Your task to perform on an android device: add a label to a message in the gmail app Image 0: 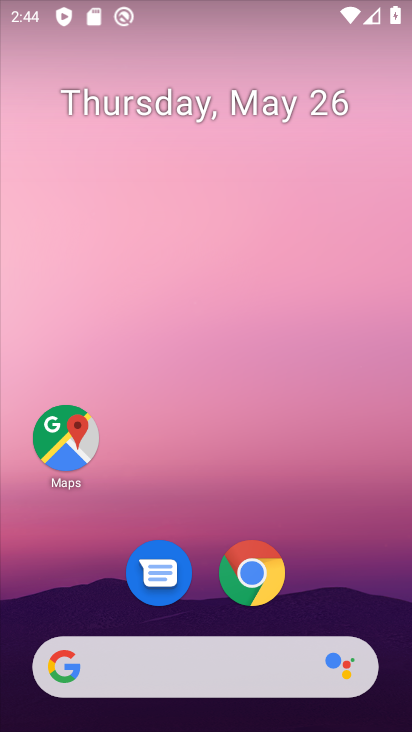
Step 0: drag from (209, 669) to (236, 162)
Your task to perform on an android device: add a label to a message in the gmail app Image 1: 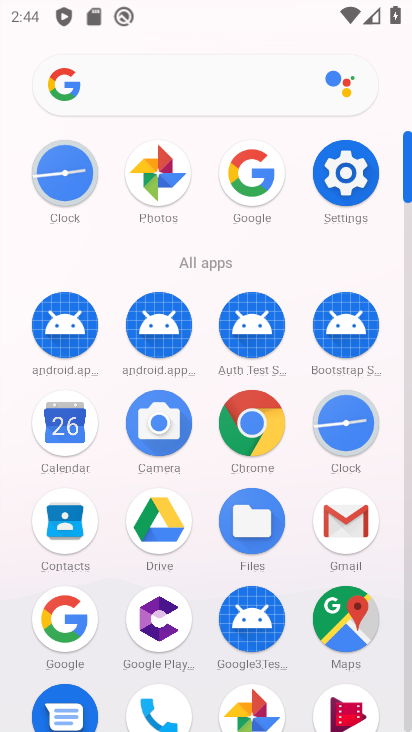
Step 1: click (353, 514)
Your task to perform on an android device: add a label to a message in the gmail app Image 2: 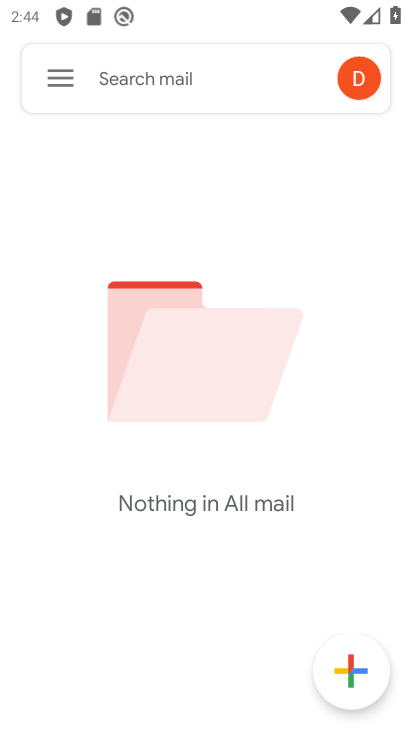
Step 2: click (64, 89)
Your task to perform on an android device: add a label to a message in the gmail app Image 3: 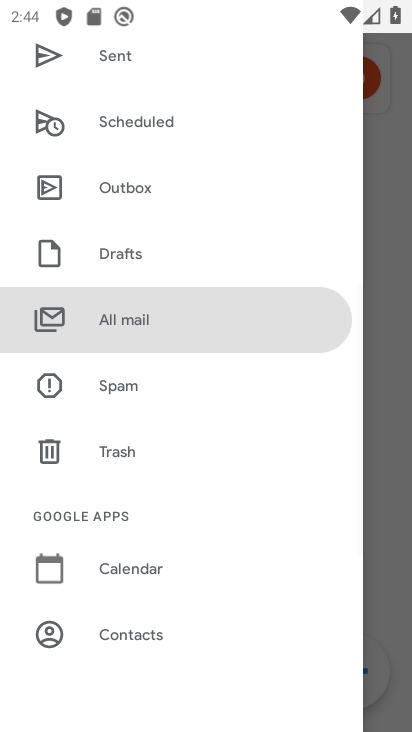
Step 3: click (152, 321)
Your task to perform on an android device: add a label to a message in the gmail app Image 4: 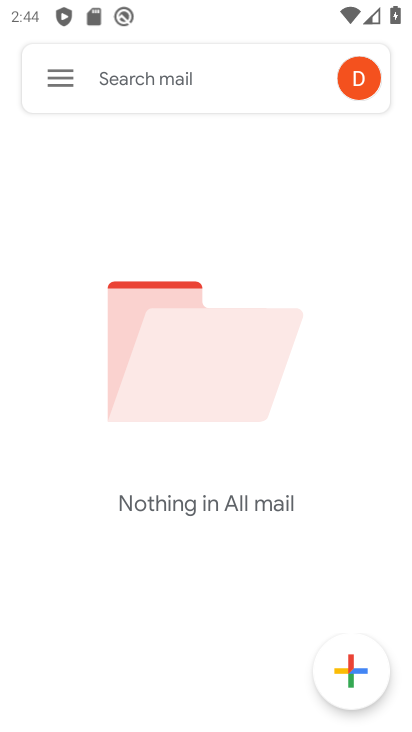
Step 4: click (44, 61)
Your task to perform on an android device: add a label to a message in the gmail app Image 5: 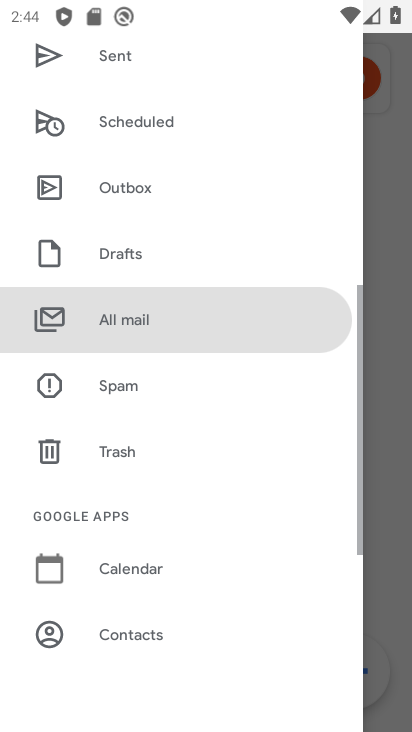
Step 5: drag from (142, 155) to (182, 726)
Your task to perform on an android device: add a label to a message in the gmail app Image 6: 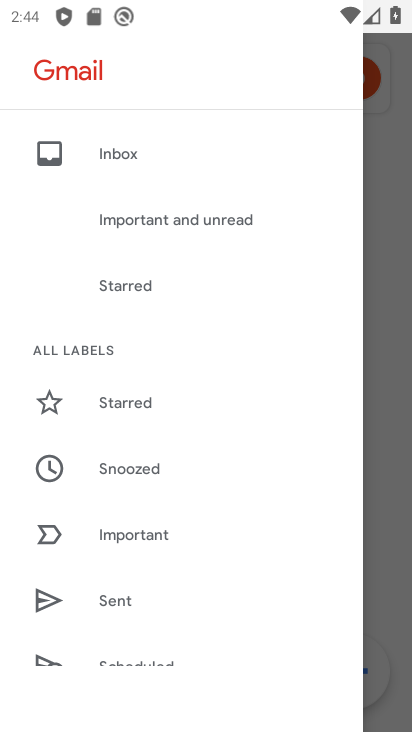
Step 6: click (110, 147)
Your task to perform on an android device: add a label to a message in the gmail app Image 7: 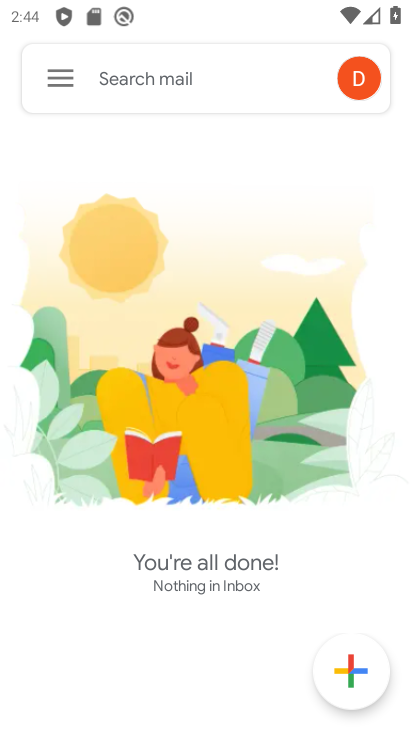
Step 7: task complete